Your task to perform on an android device: toggle show notifications on the lock screen Image 0: 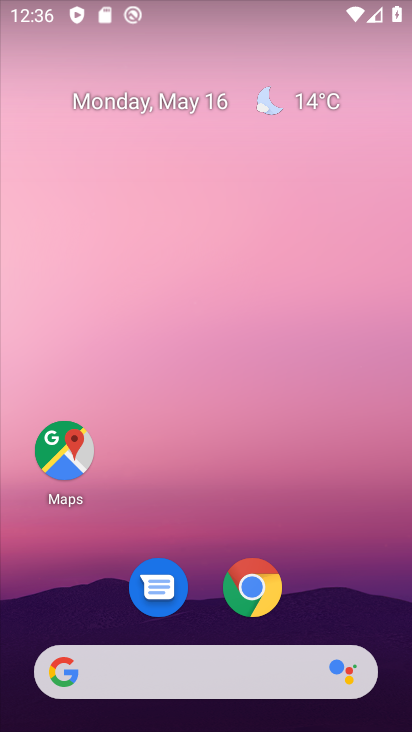
Step 0: drag from (214, 724) to (245, 83)
Your task to perform on an android device: toggle show notifications on the lock screen Image 1: 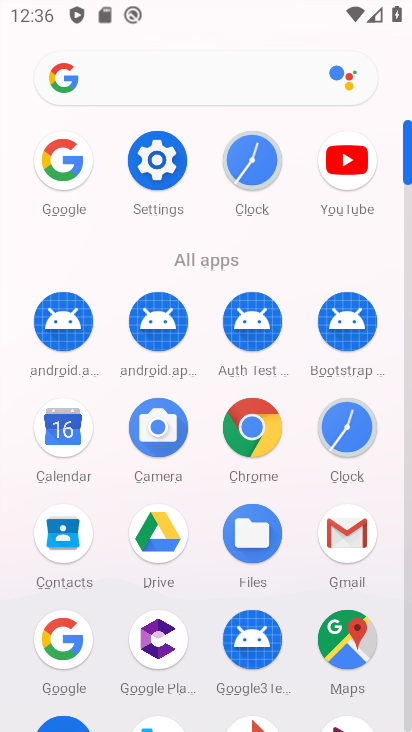
Step 1: click (165, 155)
Your task to perform on an android device: toggle show notifications on the lock screen Image 2: 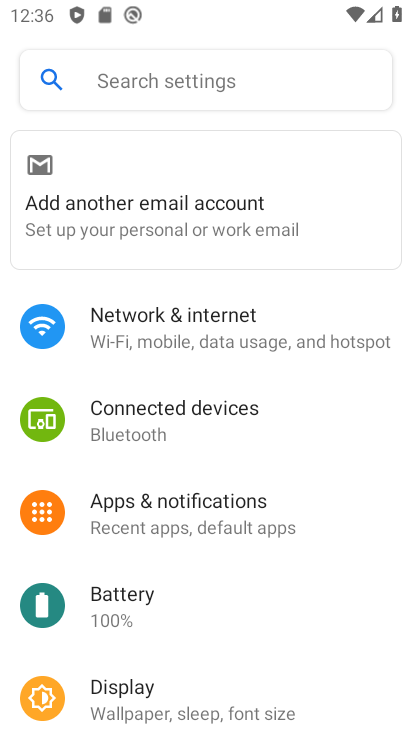
Step 2: click (185, 512)
Your task to perform on an android device: toggle show notifications on the lock screen Image 3: 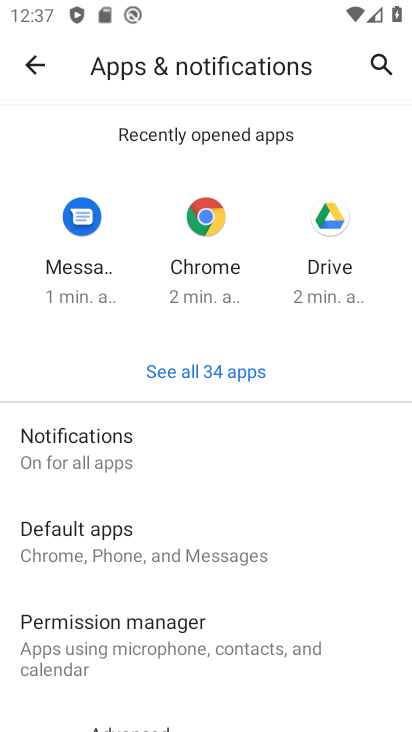
Step 3: click (68, 464)
Your task to perform on an android device: toggle show notifications on the lock screen Image 4: 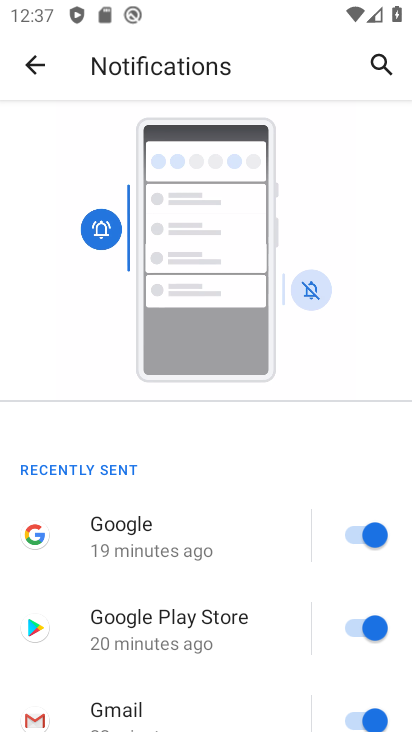
Step 4: drag from (153, 683) to (166, 355)
Your task to perform on an android device: toggle show notifications on the lock screen Image 5: 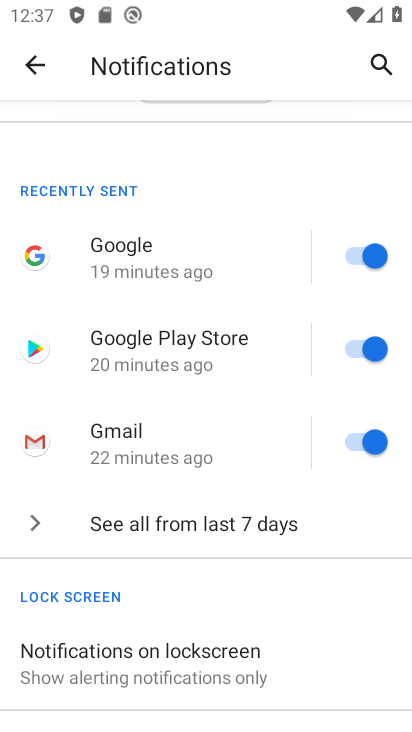
Step 5: drag from (228, 668) to (214, 370)
Your task to perform on an android device: toggle show notifications on the lock screen Image 6: 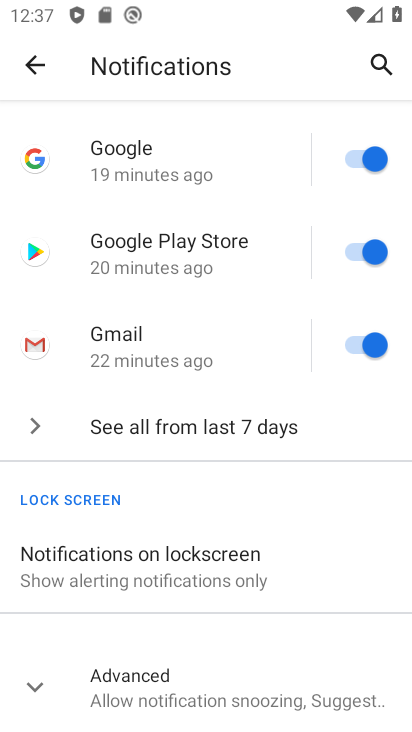
Step 6: click (159, 566)
Your task to perform on an android device: toggle show notifications on the lock screen Image 7: 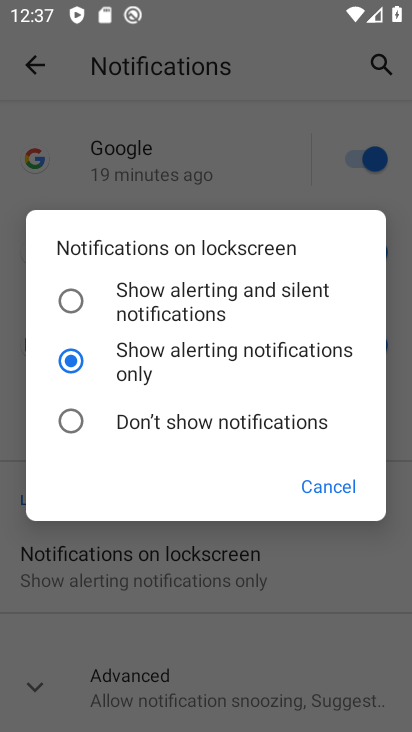
Step 7: click (72, 300)
Your task to perform on an android device: toggle show notifications on the lock screen Image 8: 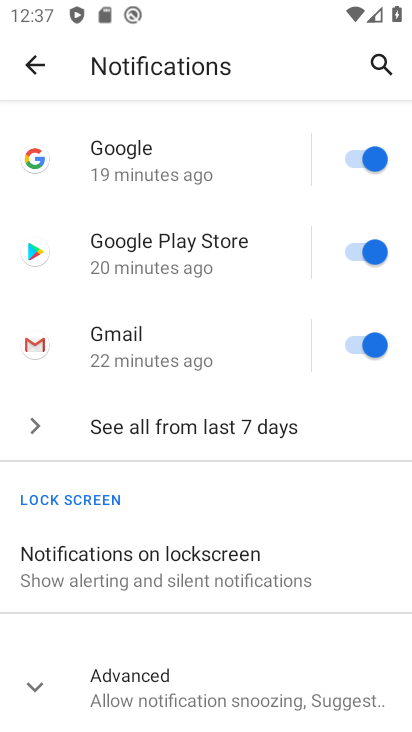
Step 8: task complete